Your task to perform on an android device: Go to notification settings Image 0: 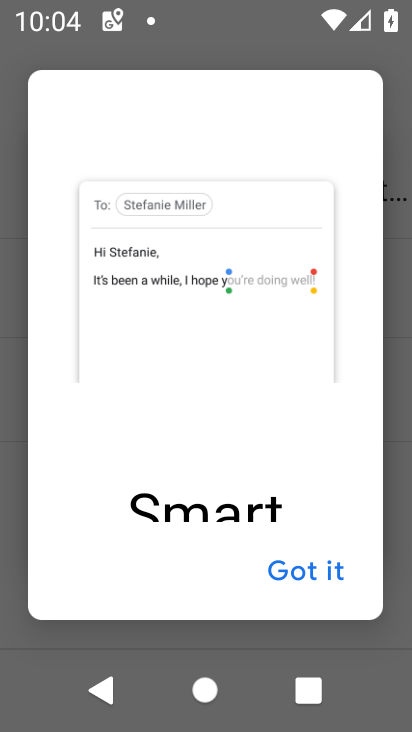
Step 0: press home button
Your task to perform on an android device: Go to notification settings Image 1: 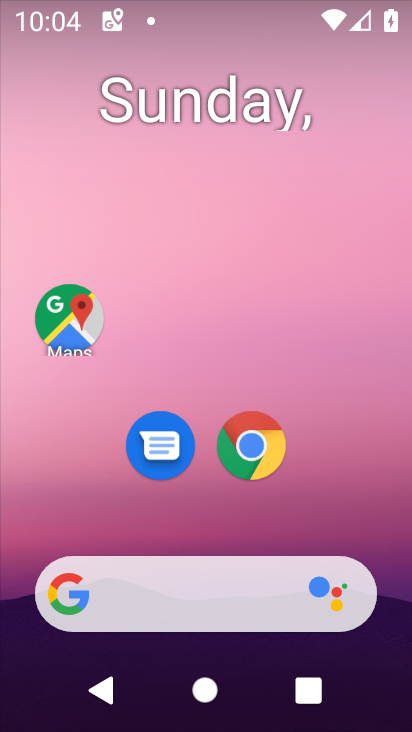
Step 1: drag from (372, 497) to (309, 120)
Your task to perform on an android device: Go to notification settings Image 2: 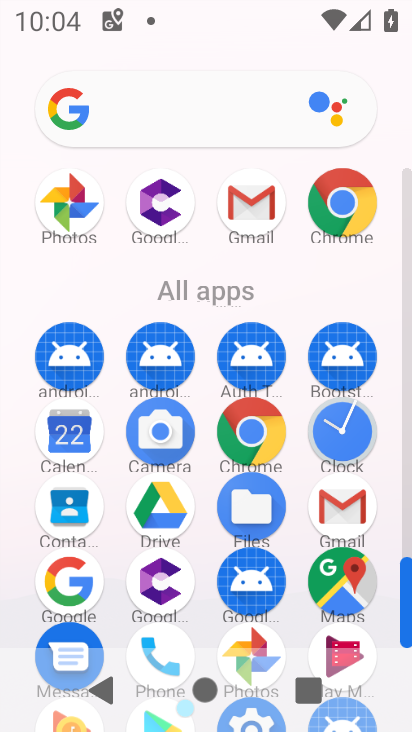
Step 2: drag from (403, 595) to (401, 704)
Your task to perform on an android device: Go to notification settings Image 3: 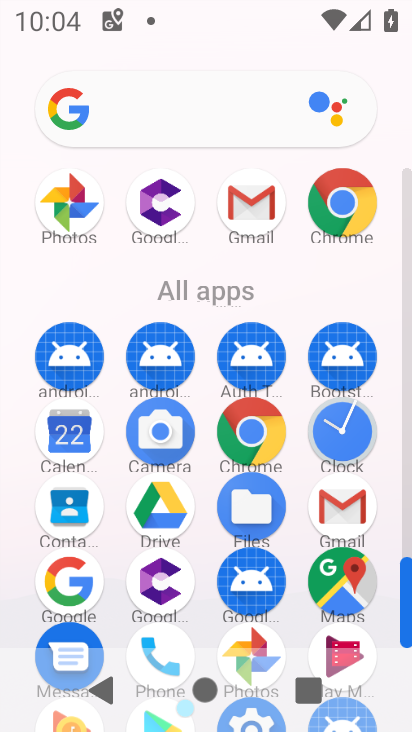
Step 3: drag from (405, 581) to (382, 724)
Your task to perform on an android device: Go to notification settings Image 4: 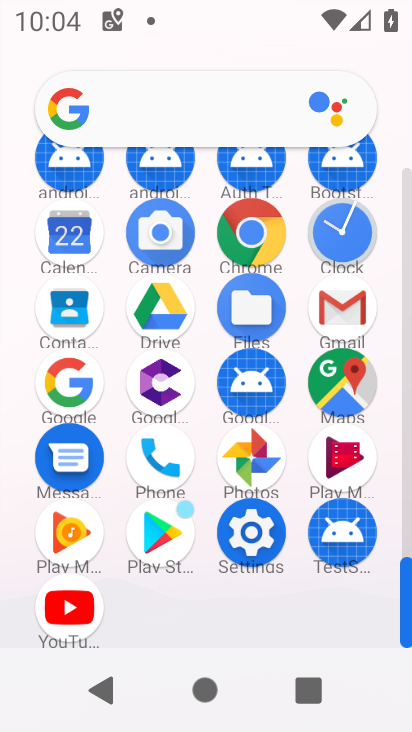
Step 4: click (246, 536)
Your task to perform on an android device: Go to notification settings Image 5: 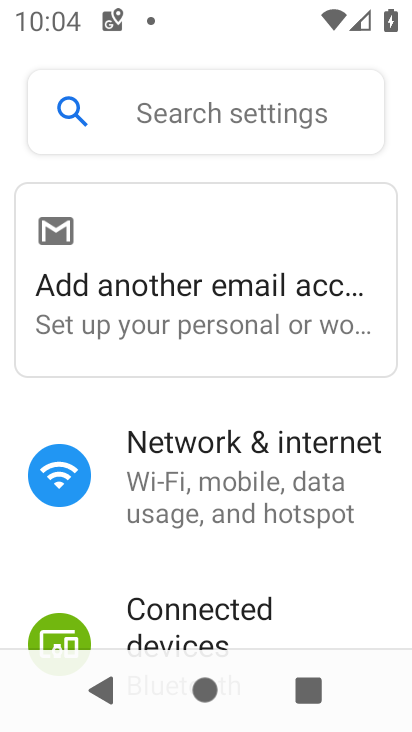
Step 5: drag from (243, 558) to (235, 170)
Your task to perform on an android device: Go to notification settings Image 6: 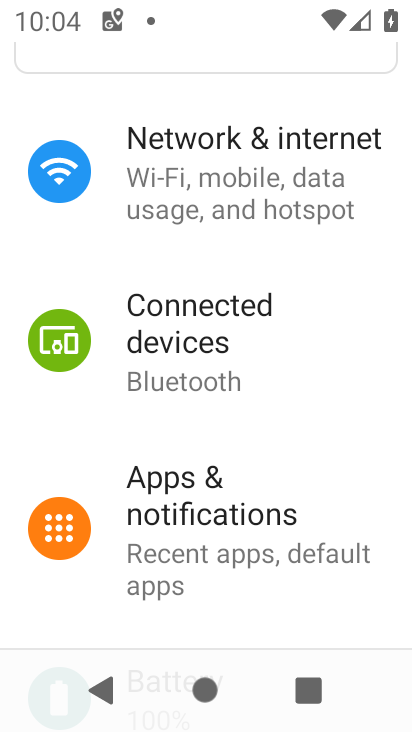
Step 6: click (153, 479)
Your task to perform on an android device: Go to notification settings Image 7: 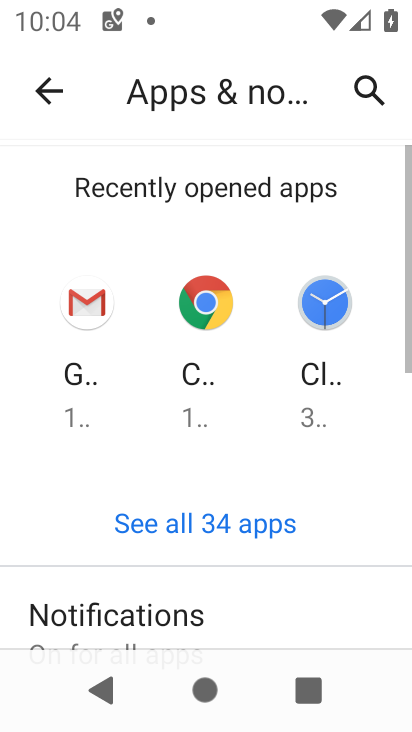
Step 7: task complete